Your task to perform on an android device: What's the weather going to be this weekend? Image 0: 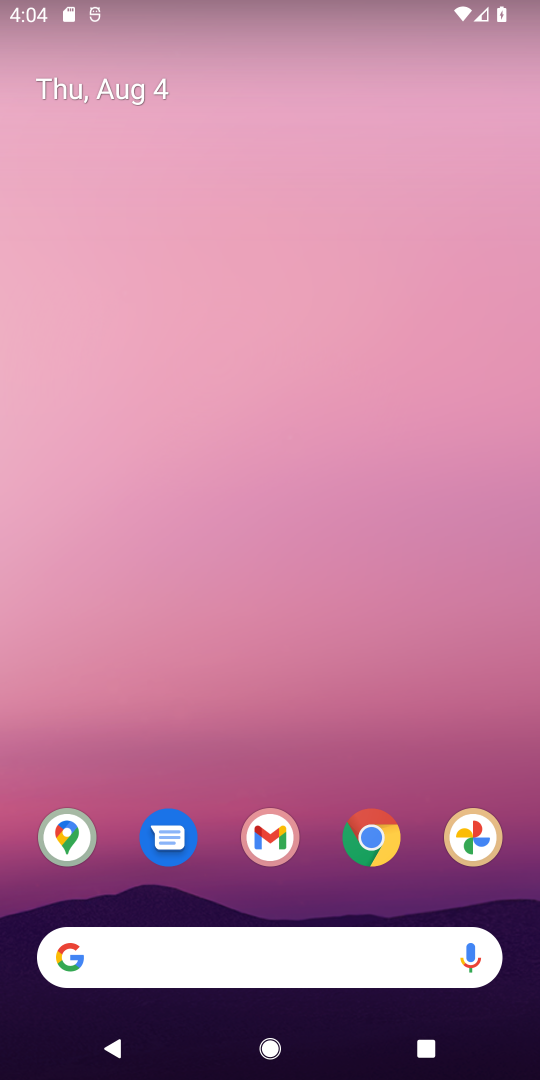
Step 0: click (229, 950)
Your task to perform on an android device: What's the weather going to be this weekend? Image 1: 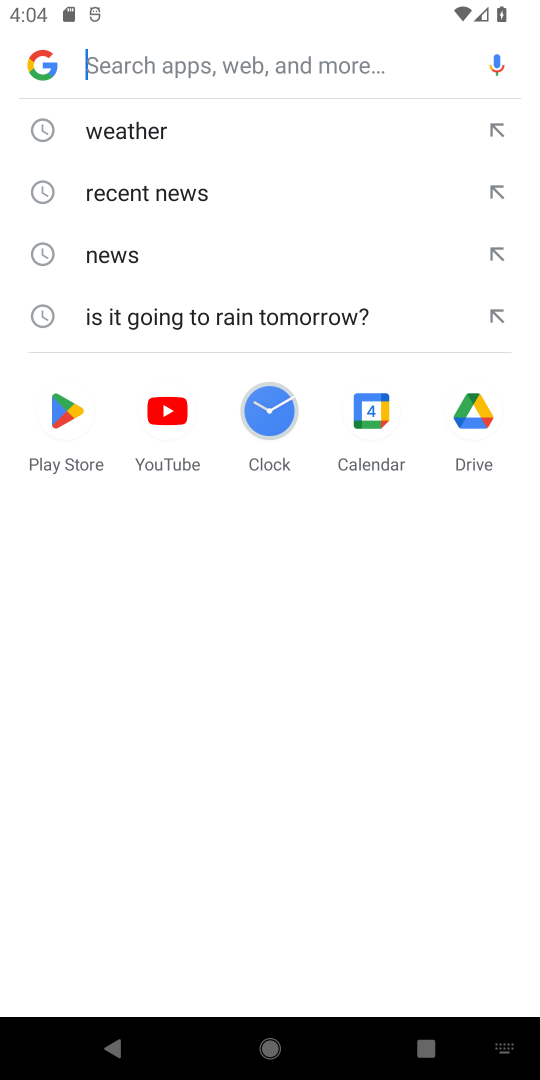
Step 1: click (178, 132)
Your task to perform on an android device: What's the weather going to be this weekend? Image 2: 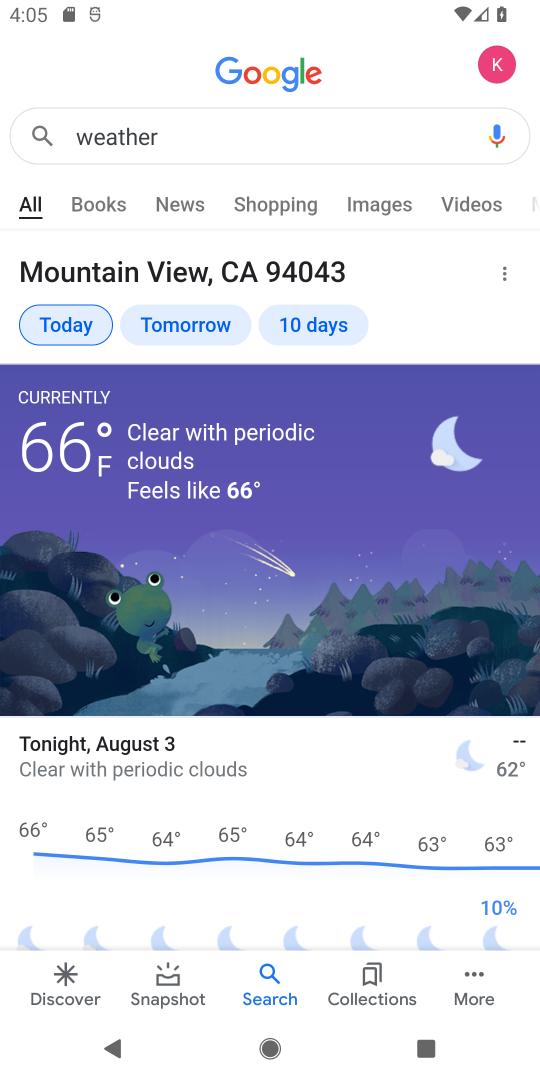
Step 2: drag from (254, 792) to (296, 303)
Your task to perform on an android device: What's the weather going to be this weekend? Image 3: 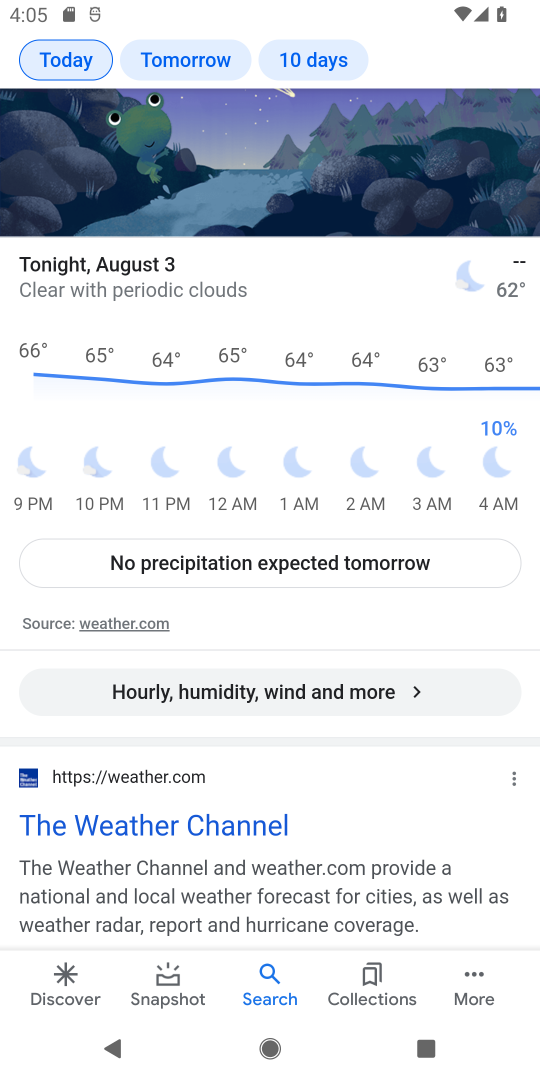
Step 3: click (303, 58)
Your task to perform on an android device: What's the weather going to be this weekend? Image 4: 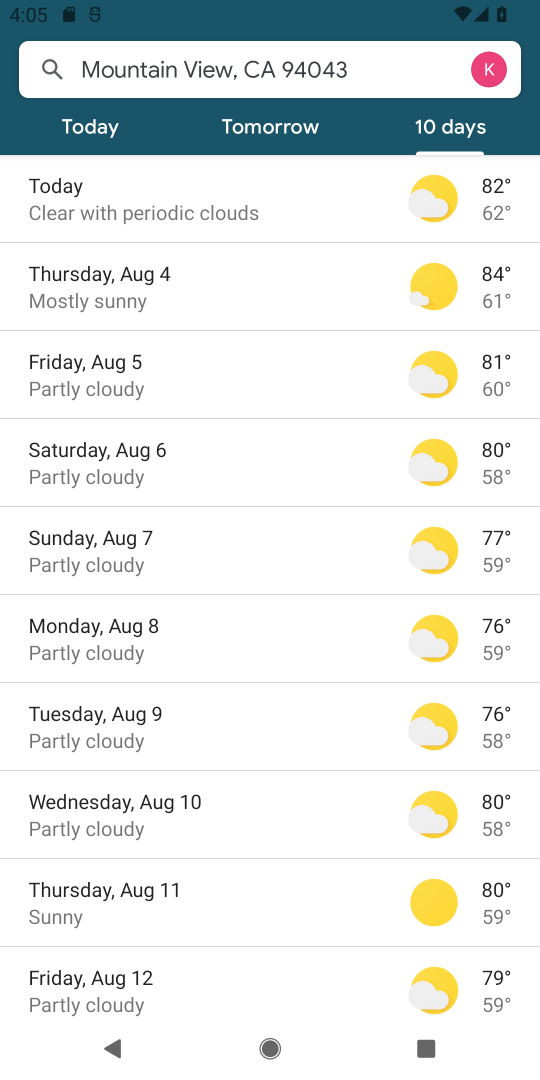
Step 4: click (118, 451)
Your task to perform on an android device: What's the weather going to be this weekend? Image 5: 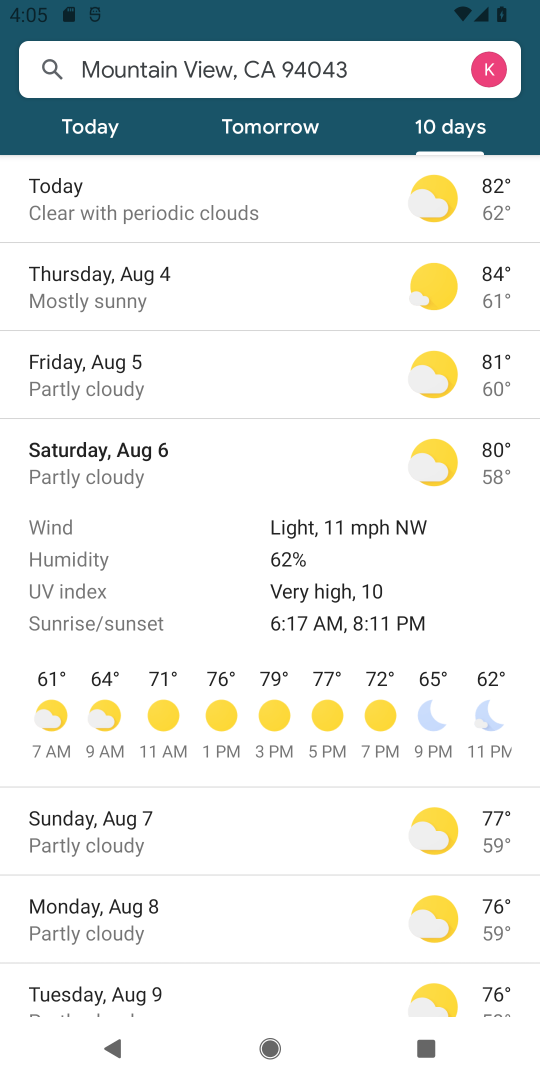
Step 5: click (137, 827)
Your task to perform on an android device: What's the weather going to be this weekend? Image 6: 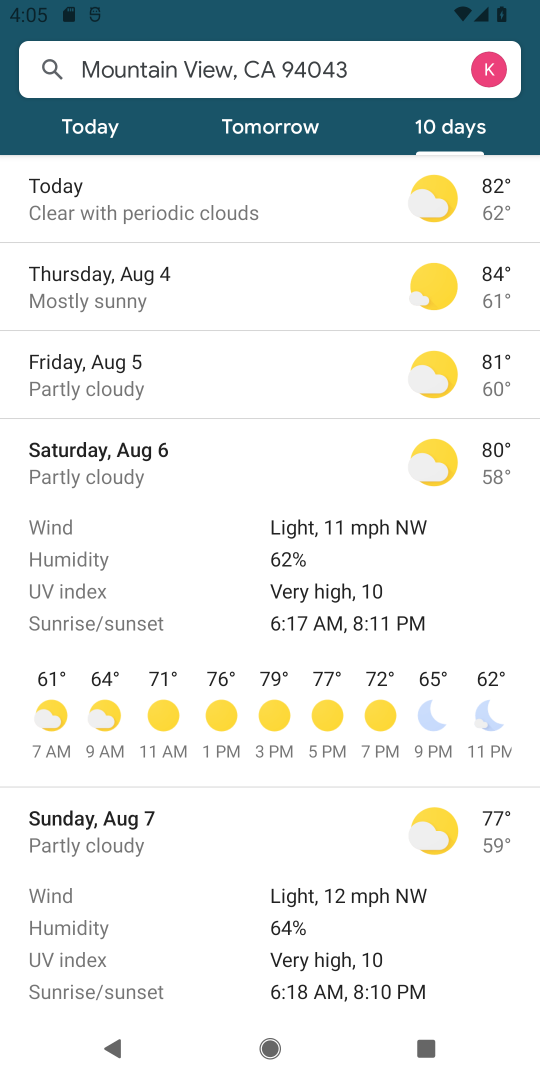
Step 6: task complete